Your task to perform on an android device: Open my contact list Image 0: 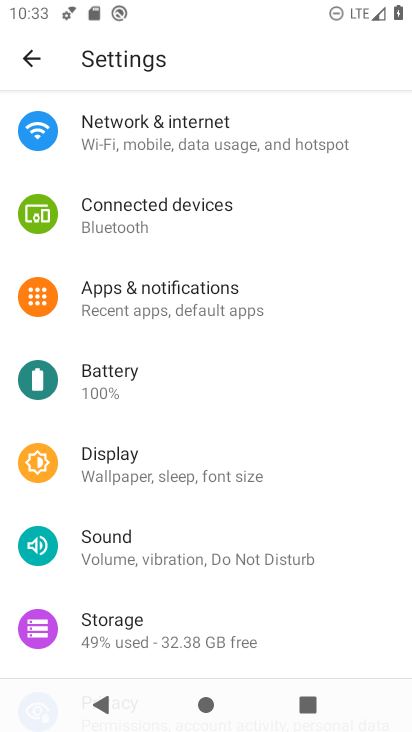
Step 0: press home button
Your task to perform on an android device: Open my contact list Image 1: 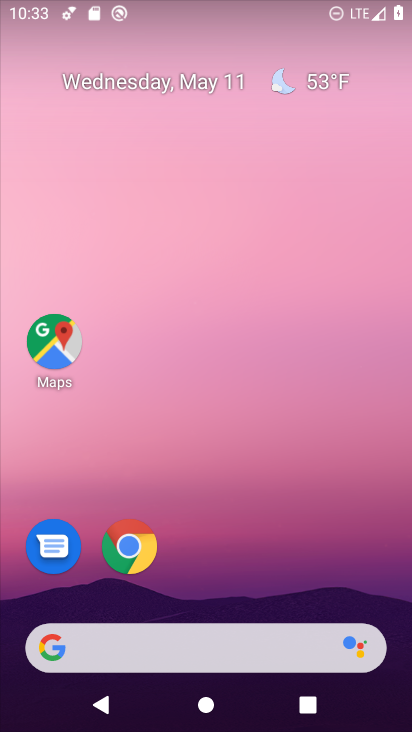
Step 1: drag from (338, 567) to (261, 10)
Your task to perform on an android device: Open my contact list Image 2: 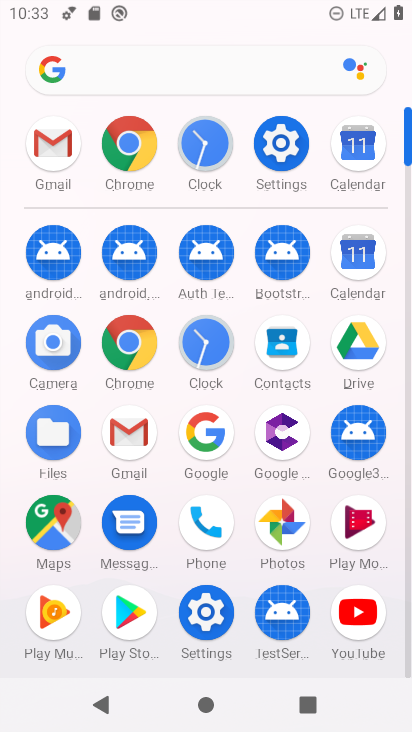
Step 2: click (278, 363)
Your task to perform on an android device: Open my contact list Image 3: 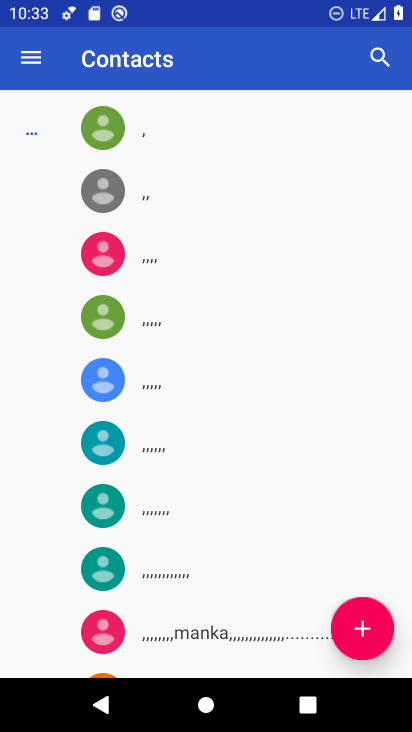
Step 3: task complete